Your task to perform on an android device: What's on my calendar tomorrow? Image 0: 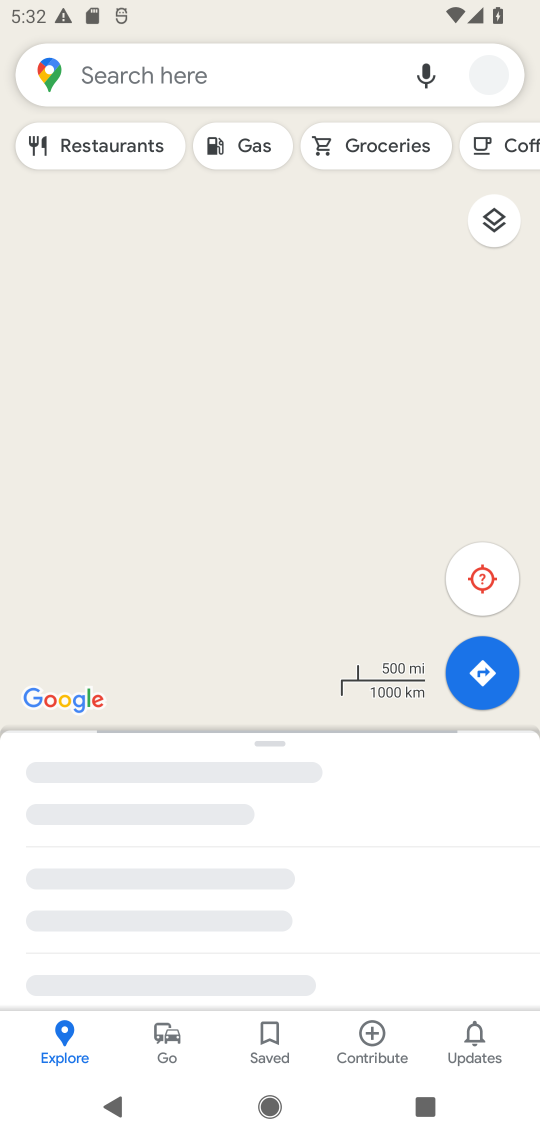
Step 0: press home button
Your task to perform on an android device: What's on my calendar tomorrow? Image 1: 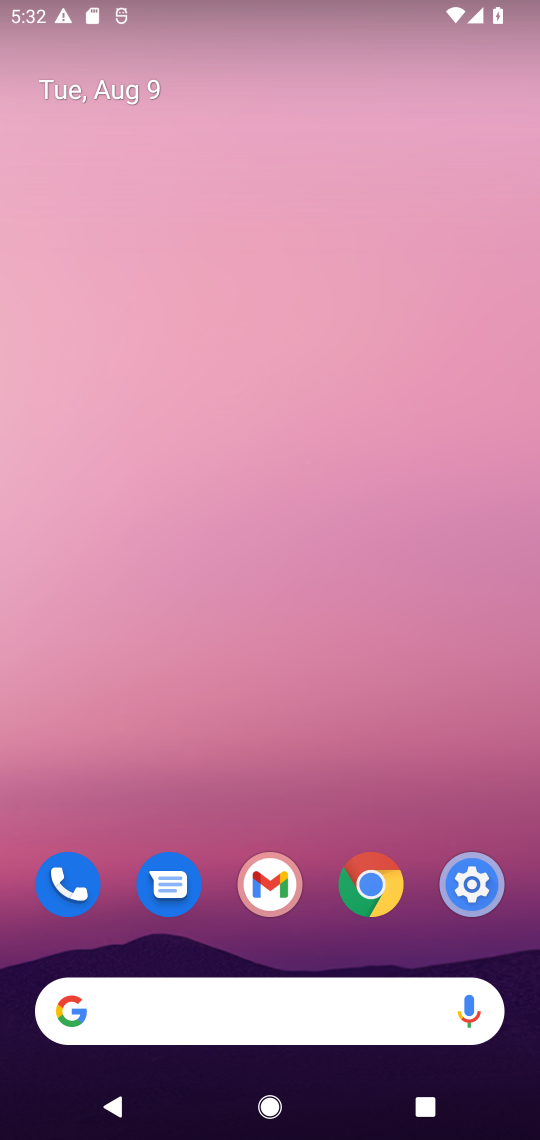
Step 1: drag from (252, 1012) to (237, 148)
Your task to perform on an android device: What's on my calendar tomorrow? Image 2: 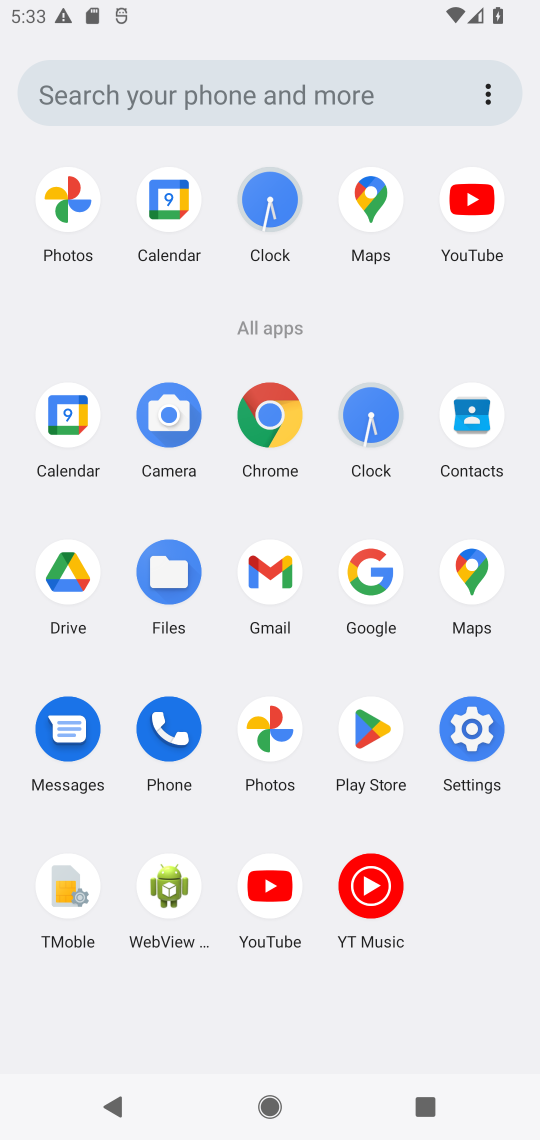
Step 2: click (170, 200)
Your task to perform on an android device: What's on my calendar tomorrow? Image 3: 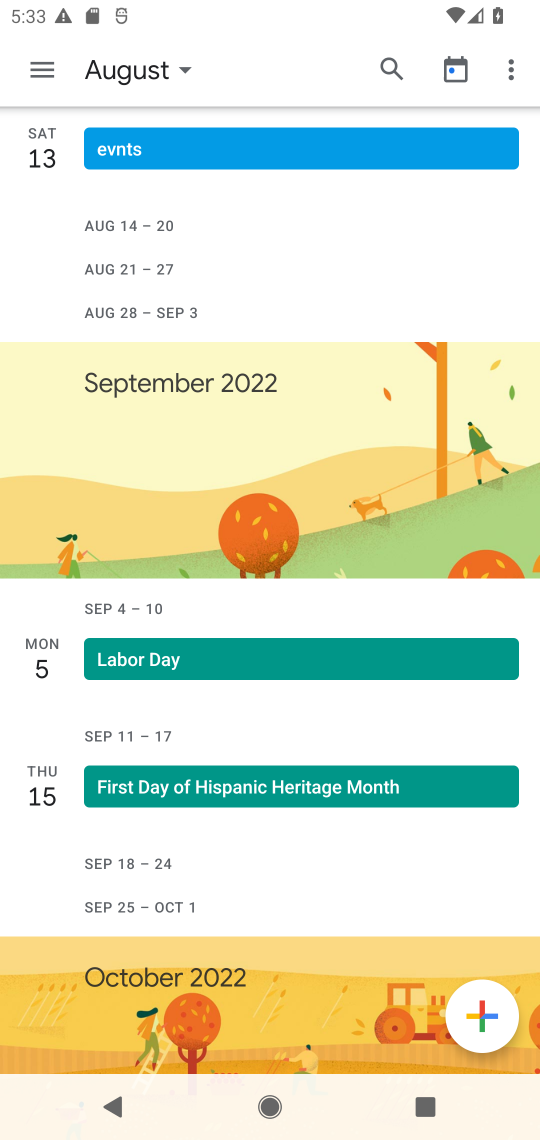
Step 3: click (462, 70)
Your task to perform on an android device: What's on my calendar tomorrow? Image 4: 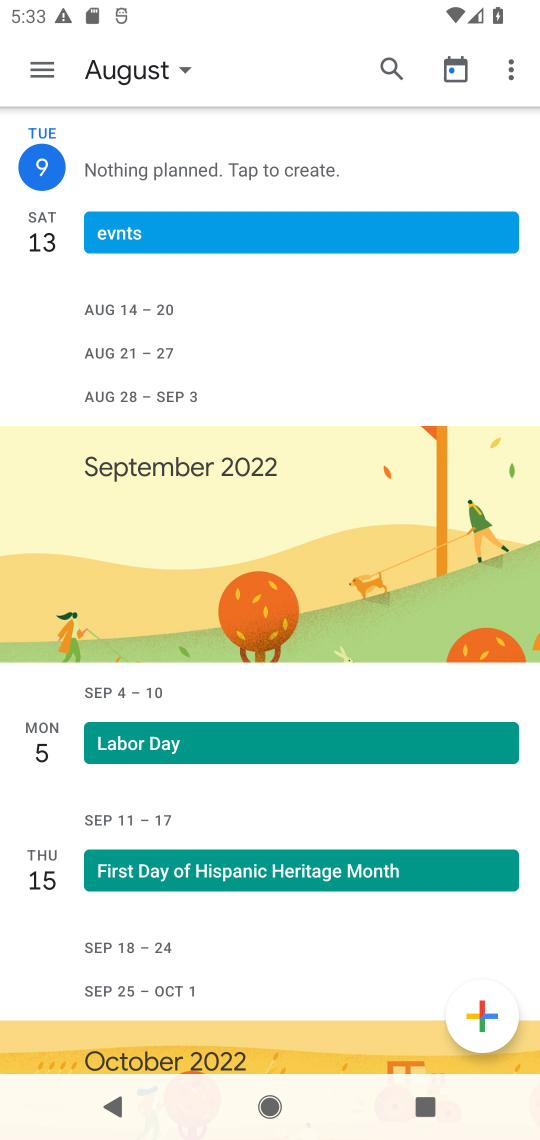
Step 4: click (188, 70)
Your task to perform on an android device: What's on my calendar tomorrow? Image 5: 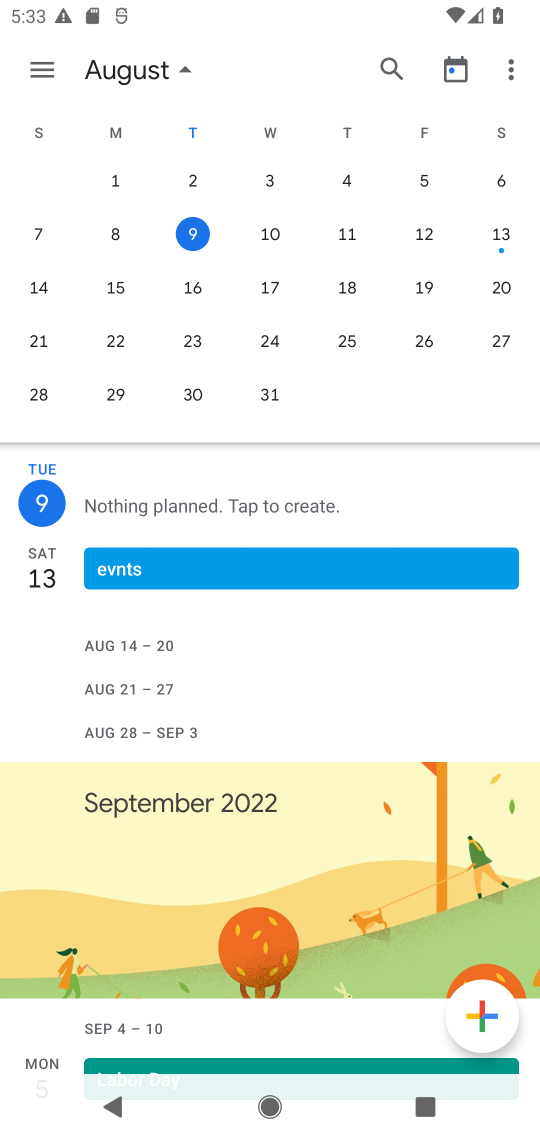
Step 5: click (275, 228)
Your task to perform on an android device: What's on my calendar tomorrow? Image 6: 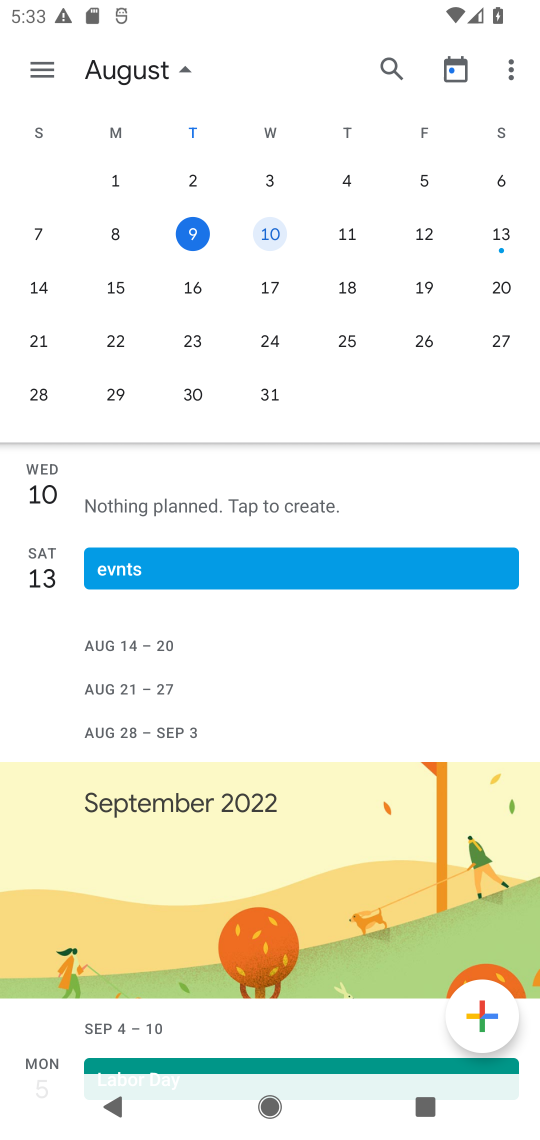
Step 6: click (49, 77)
Your task to perform on an android device: What's on my calendar tomorrow? Image 7: 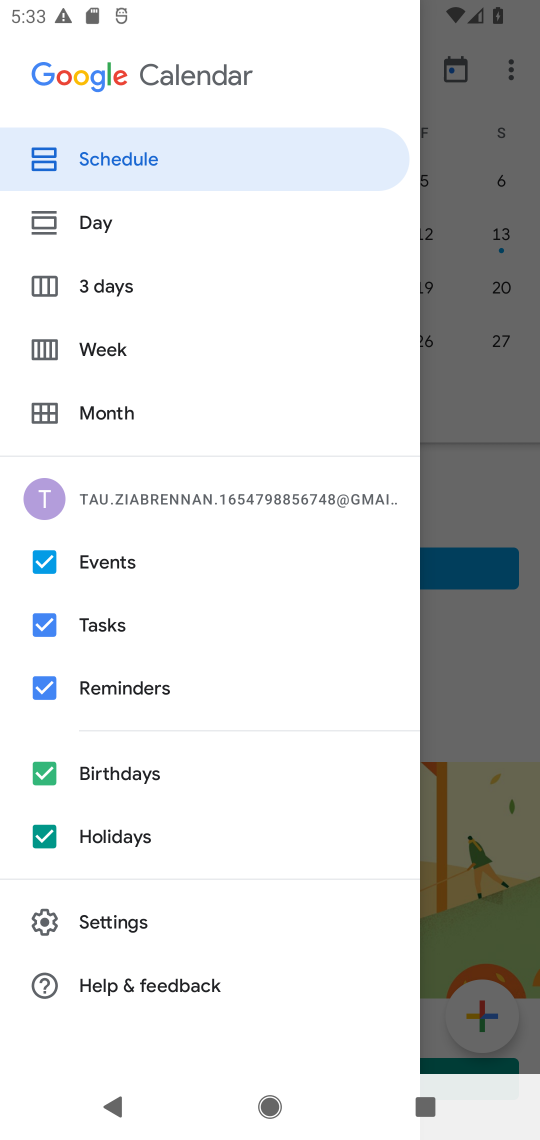
Step 7: click (119, 169)
Your task to perform on an android device: What's on my calendar tomorrow? Image 8: 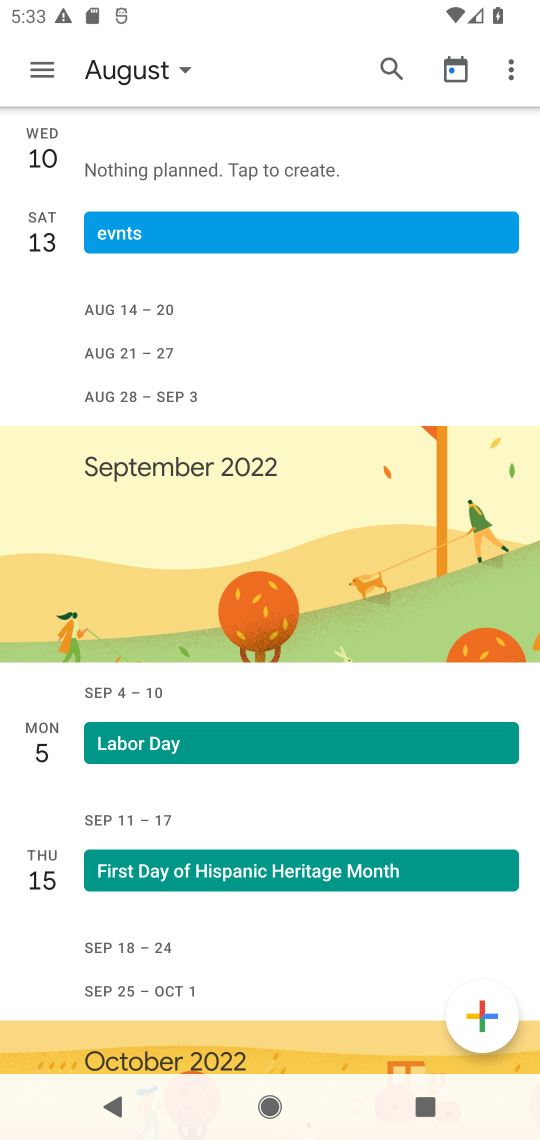
Step 8: task complete